Your task to perform on an android device: add a label to a message in the gmail app Image 0: 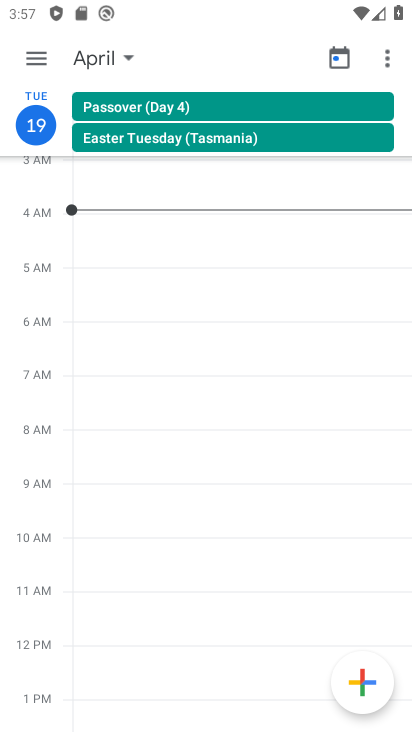
Step 0: press home button
Your task to perform on an android device: add a label to a message in the gmail app Image 1: 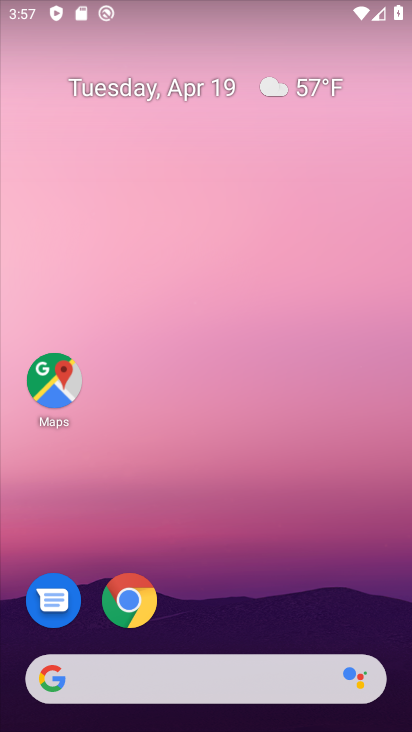
Step 1: drag from (339, 560) to (277, 191)
Your task to perform on an android device: add a label to a message in the gmail app Image 2: 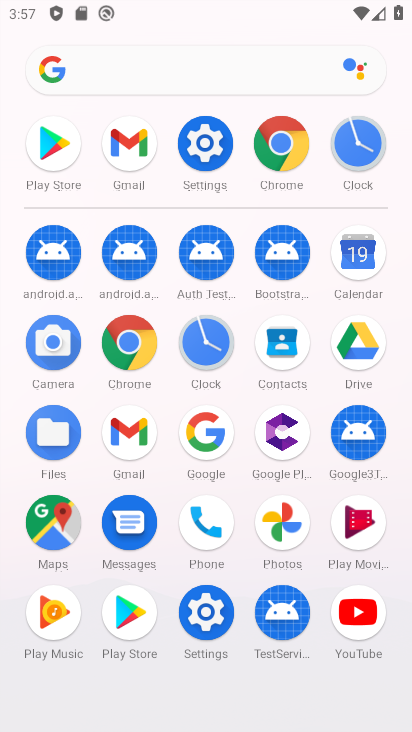
Step 2: click (134, 141)
Your task to perform on an android device: add a label to a message in the gmail app Image 3: 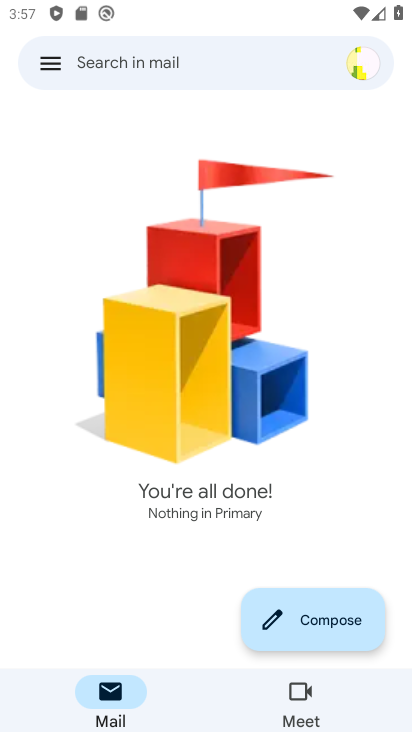
Step 3: click (51, 68)
Your task to perform on an android device: add a label to a message in the gmail app Image 4: 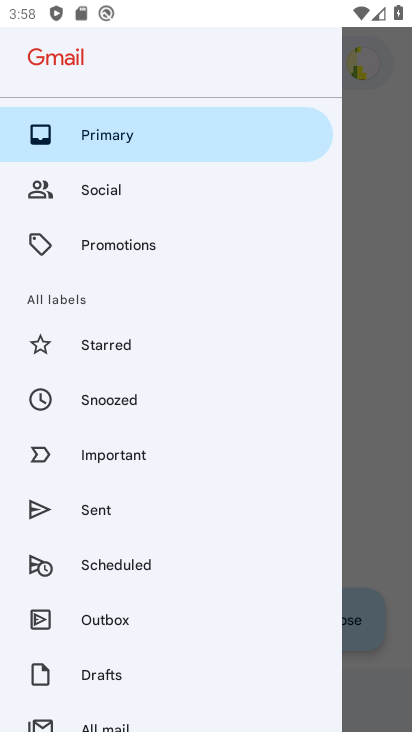
Step 4: drag from (181, 631) to (159, 218)
Your task to perform on an android device: add a label to a message in the gmail app Image 5: 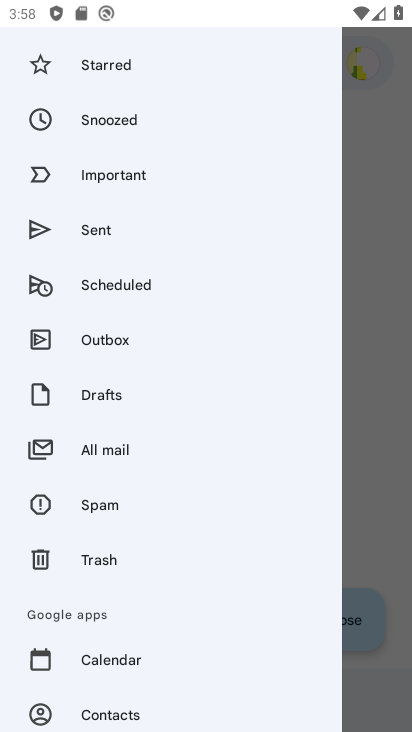
Step 5: click (147, 445)
Your task to perform on an android device: add a label to a message in the gmail app Image 6: 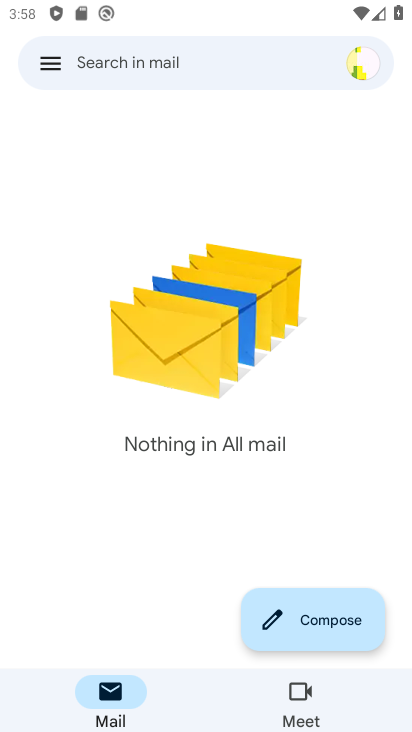
Step 6: task complete